Your task to perform on an android device: What's the weather going to be this weekend? Image 0: 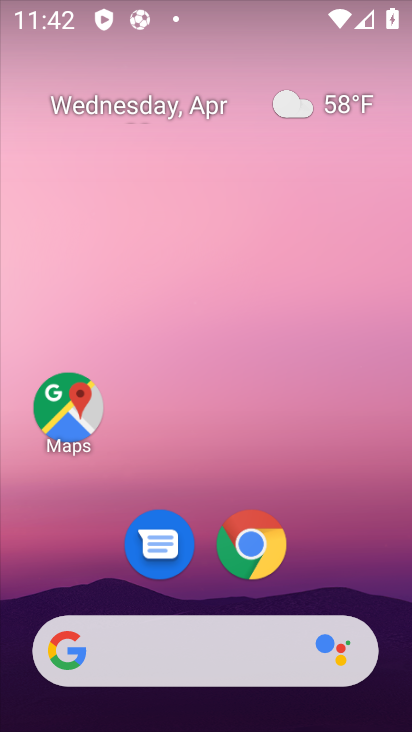
Step 0: click (260, 149)
Your task to perform on an android device: What's the weather going to be this weekend? Image 1: 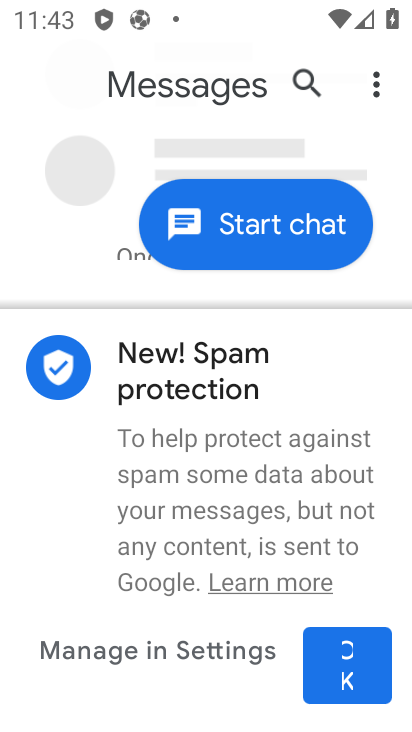
Step 1: press home button
Your task to perform on an android device: What's the weather going to be this weekend? Image 2: 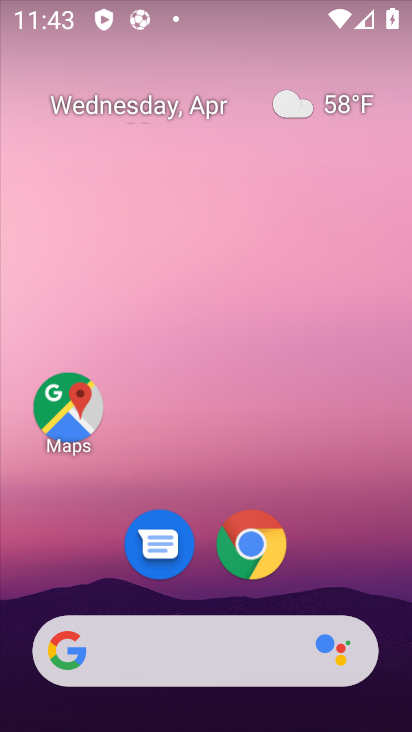
Step 2: drag from (295, 295) to (304, 20)
Your task to perform on an android device: What's the weather going to be this weekend? Image 3: 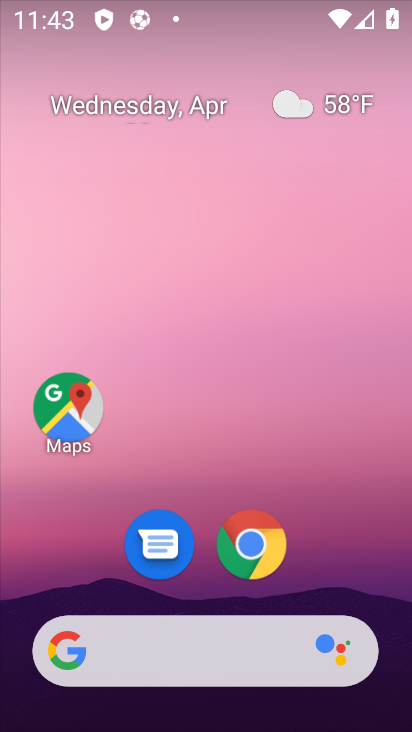
Step 3: click (314, 105)
Your task to perform on an android device: What's the weather going to be this weekend? Image 4: 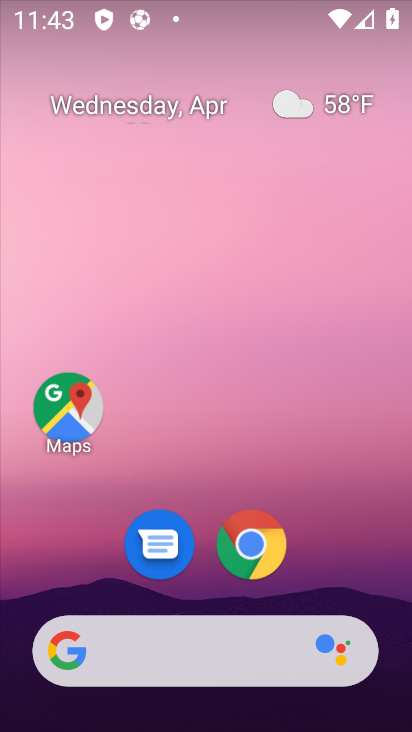
Step 4: click (314, 105)
Your task to perform on an android device: What's the weather going to be this weekend? Image 5: 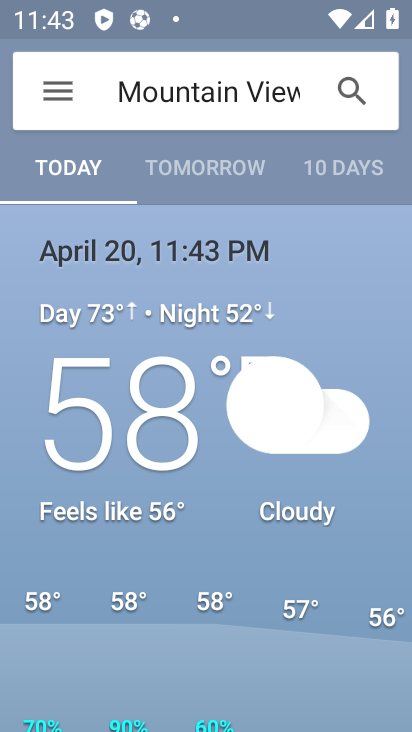
Step 5: click (336, 173)
Your task to perform on an android device: What's the weather going to be this weekend? Image 6: 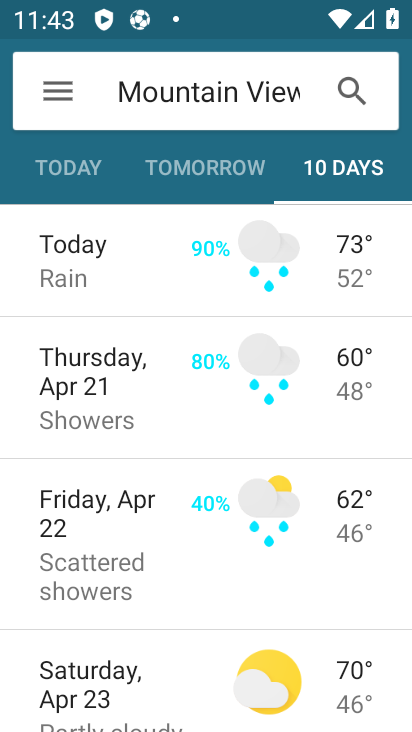
Step 6: task complete